Your task to perform on an android device: Go to sound settings Image 0: 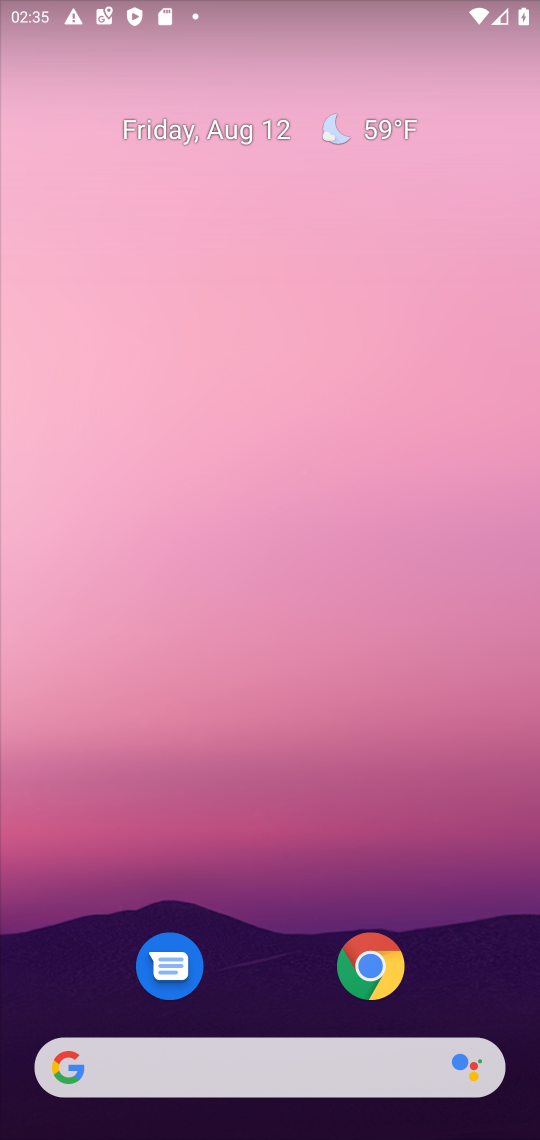
Step 0: drag from (289, 797) to (412, 110)
Your task to perform on an android device: Go to sound settings Image 1: 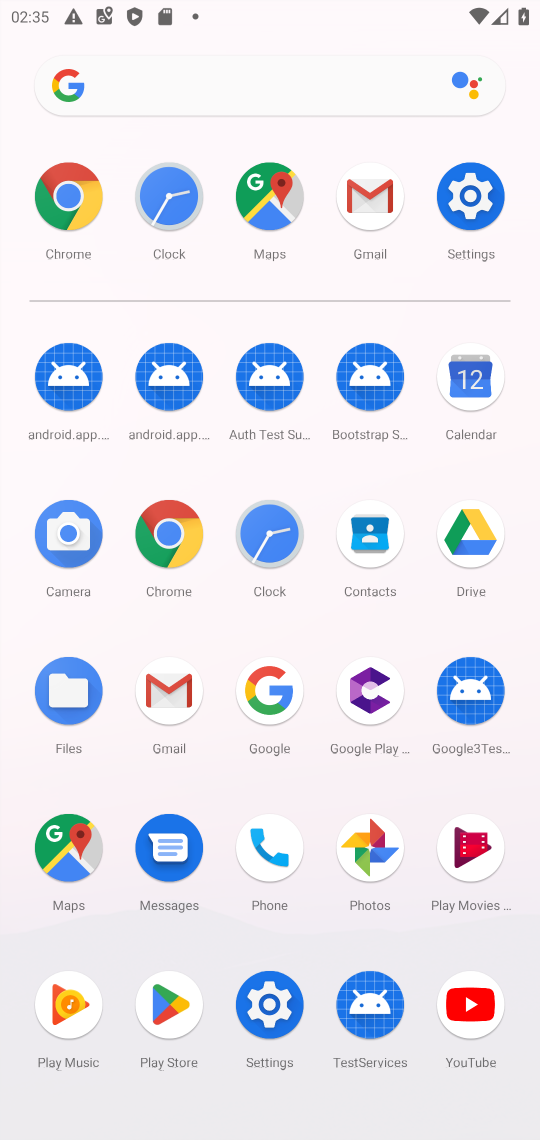
Step 1: click (265, 1011)
Your task to perform on an android device: Go to sound settings Image 2: 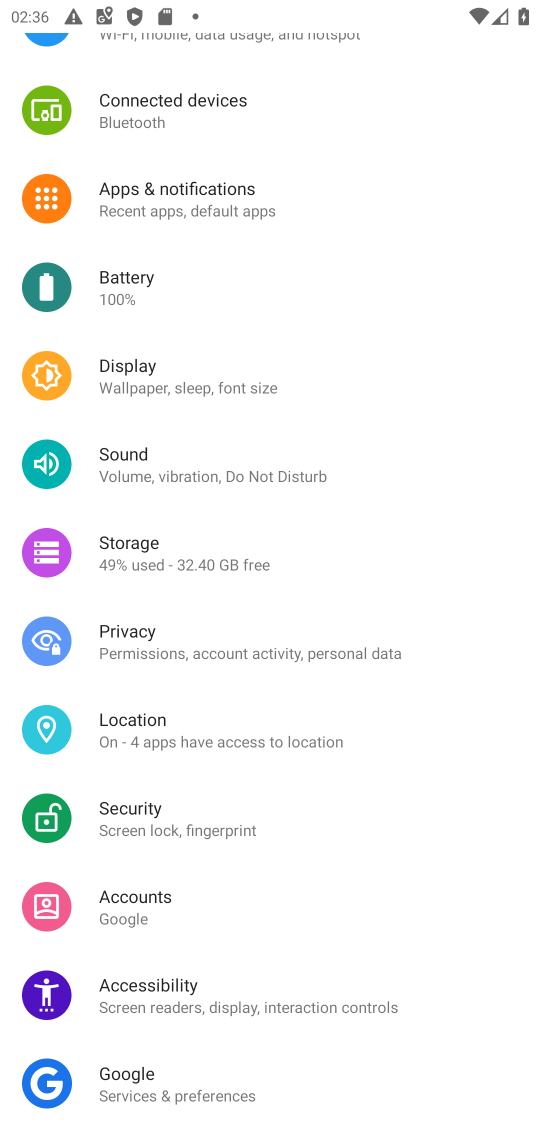
Step 2: click (205, 476)
Your task to perform on an android device: Go to sound settings Image 3: 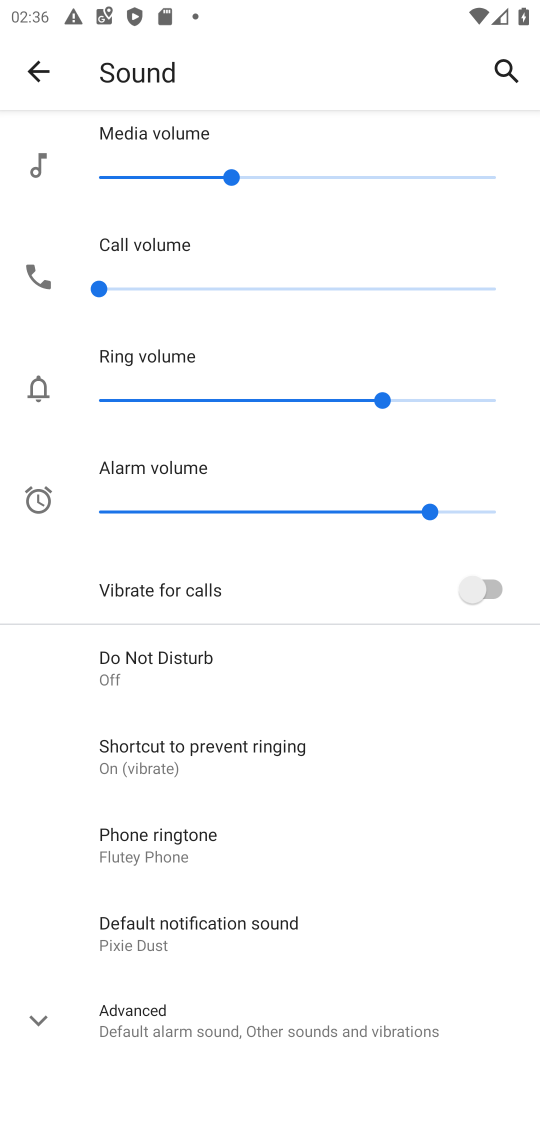
Step 3: task complete